Your task to perform on an android device: Open internet settings Image 0: 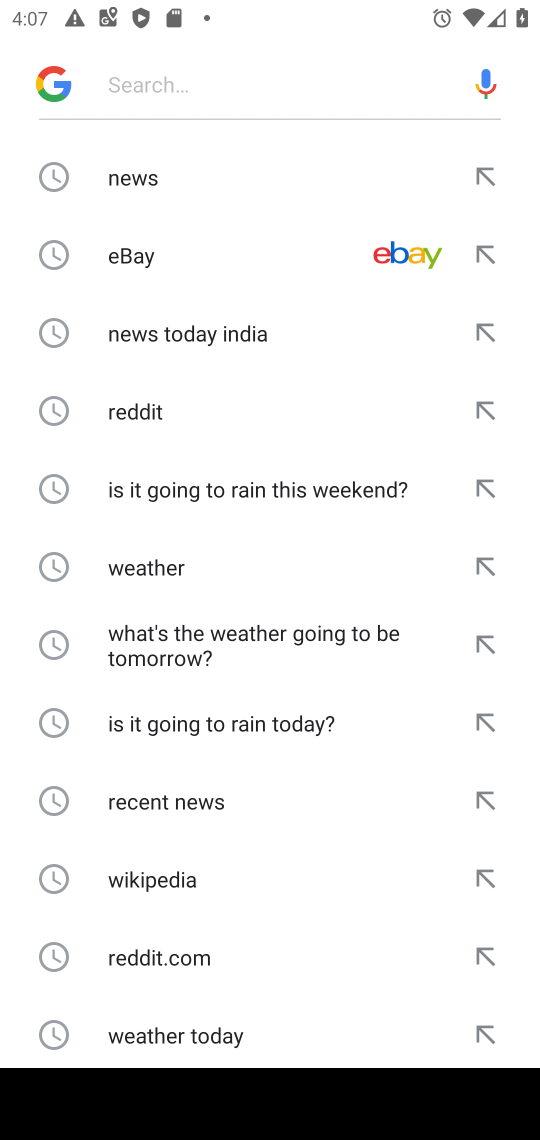
Step 0: press home button
Your task to perform on an android device: Open internet settings Image 1: 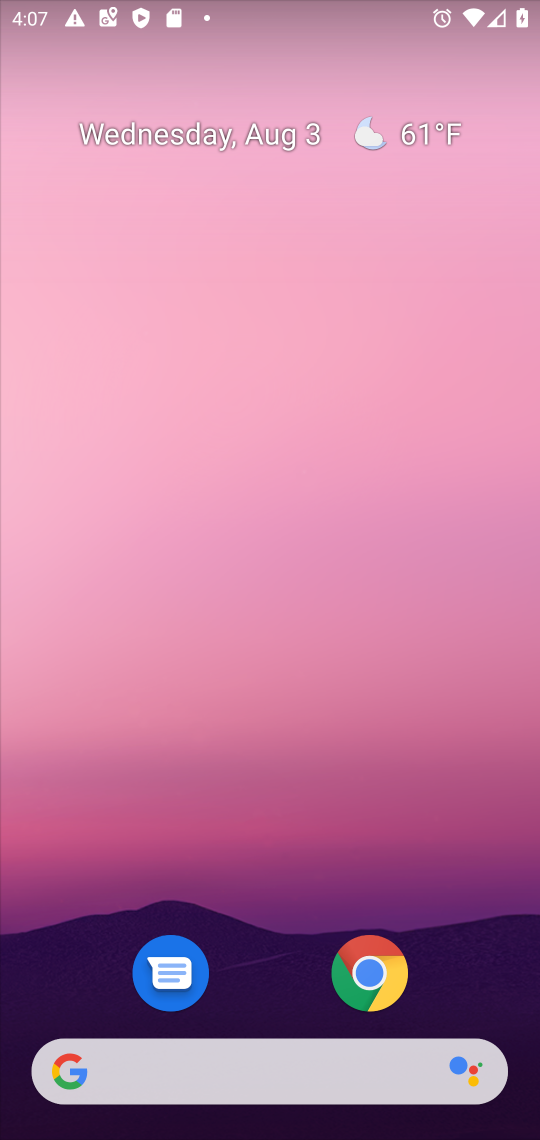
Step 1: drag from (311, 505) to (356, 42)
Your task to perform on an android device: Open internet settings Image 2: 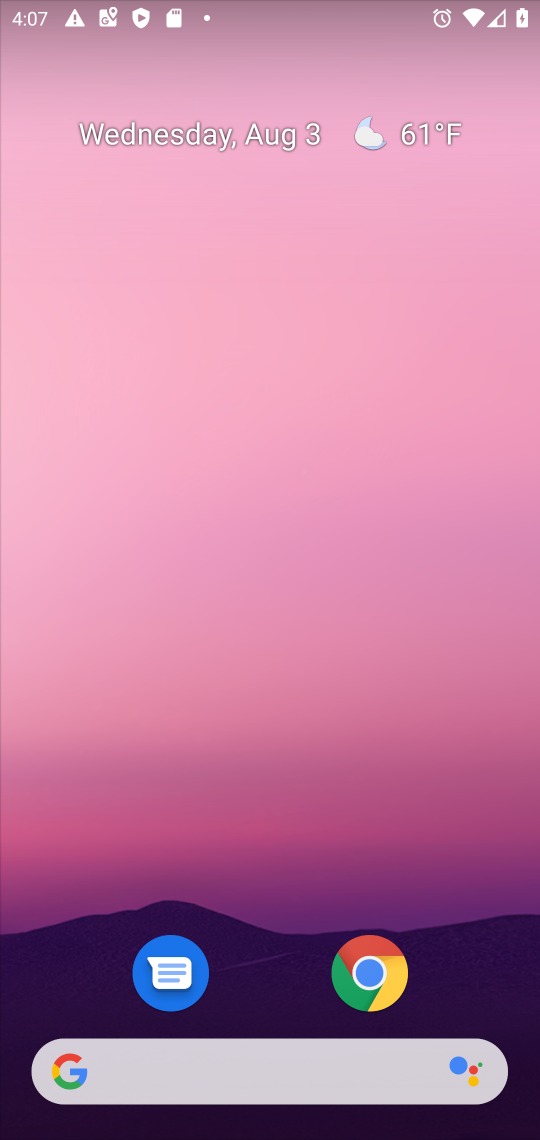
Step 2: drag from (316, 842) to (388, 73)
Your task to perform on an android device: Open internet settings Image 3: 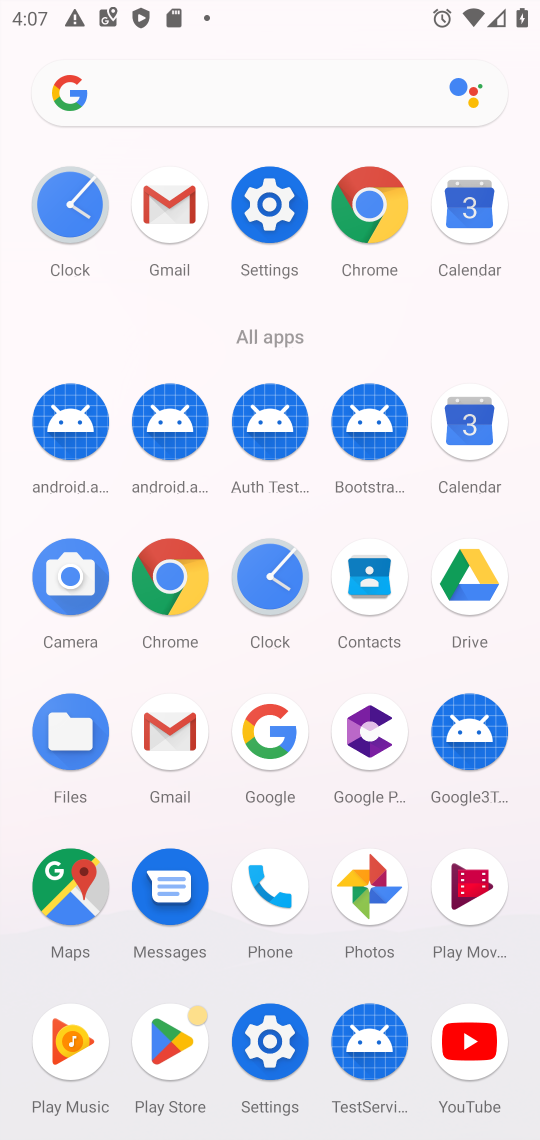
Step 3: click (278, 214)
Your task to perform on an android device: Open internet settings Image 4: 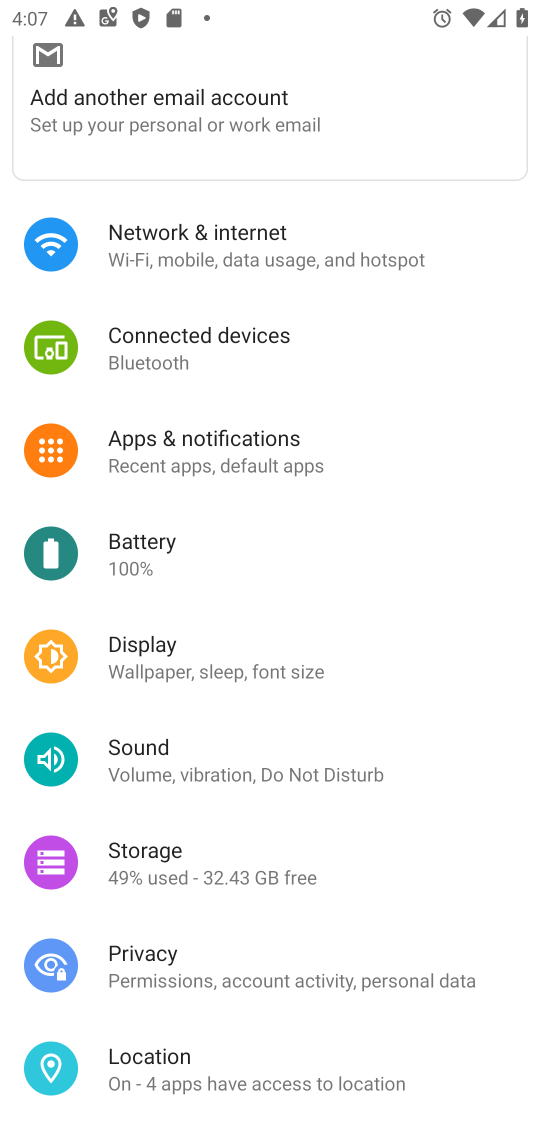
Step 4: click (260, 245)
Your task to perform on an android device: Open internet settings Image 5: 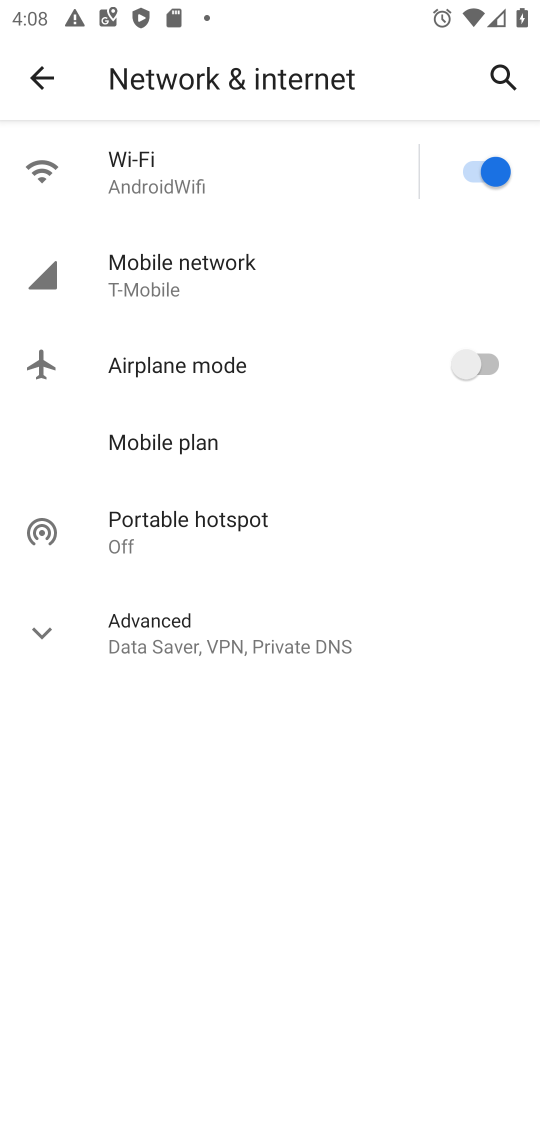
Step 5: task complete